Your task to perform on an android device: What's the weather today? Image 0: 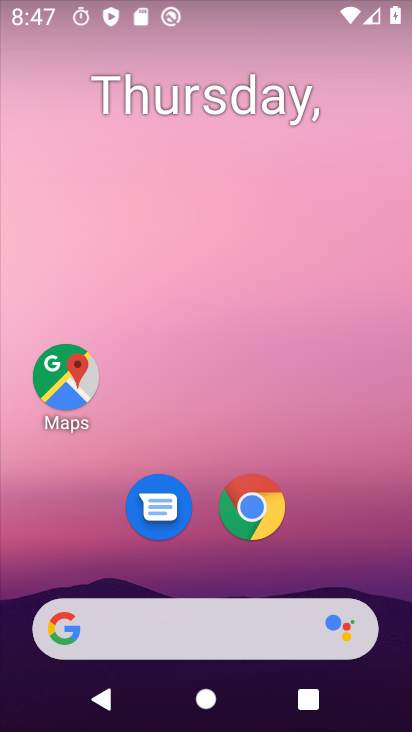
Step 0: drag from (214, 572) to (311, 0)
Your task to perform on an android device: What's the weather today? Image 1: 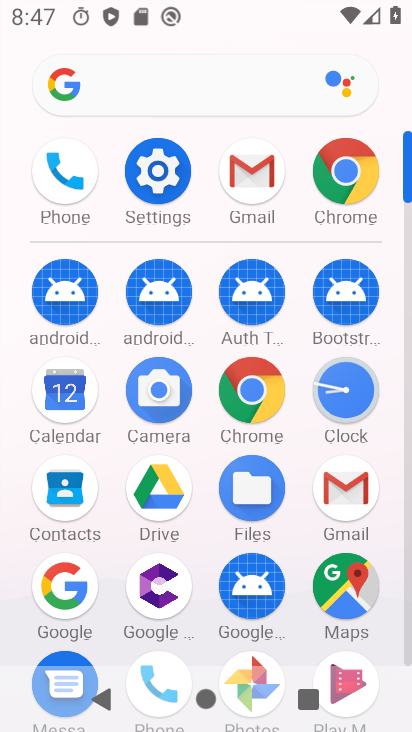
Step 1: click (191, 65)
Your task to perform on an android device: What's the weather today? Image 2: 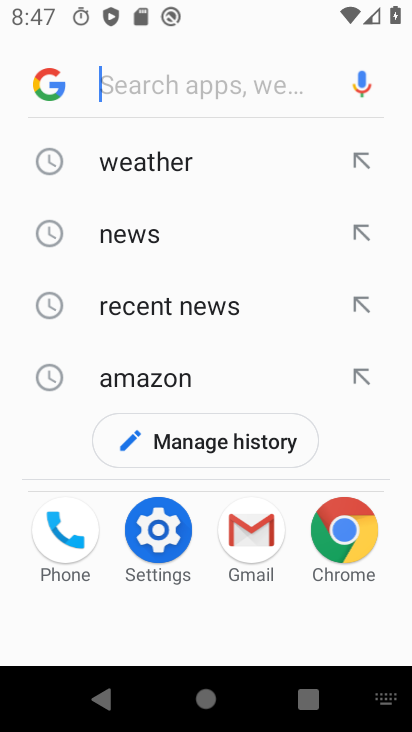
Step 2: click (139, 171)
Your task to perform on an android device: What's the weather today? Image 3: 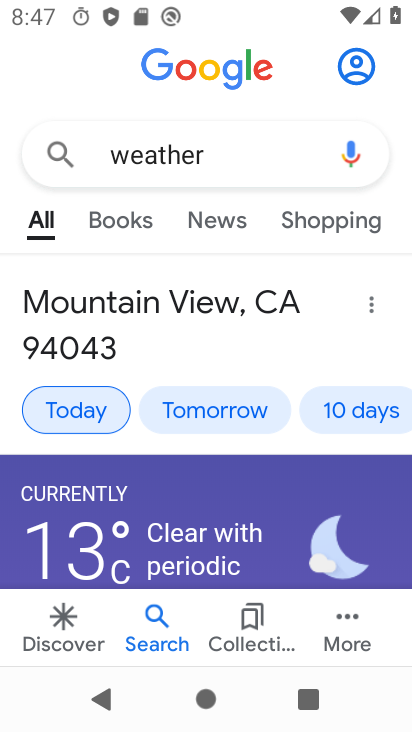
Step 3: task complete